Your task to perform on an android device: Show me popular videos on Youtube Image 0: 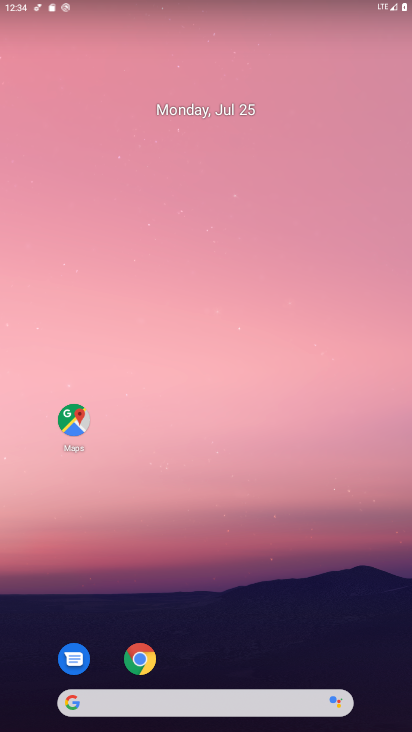
Step 0: press home button
Your task to perform on an android device: Show me popular videos on Youtube Image 1: 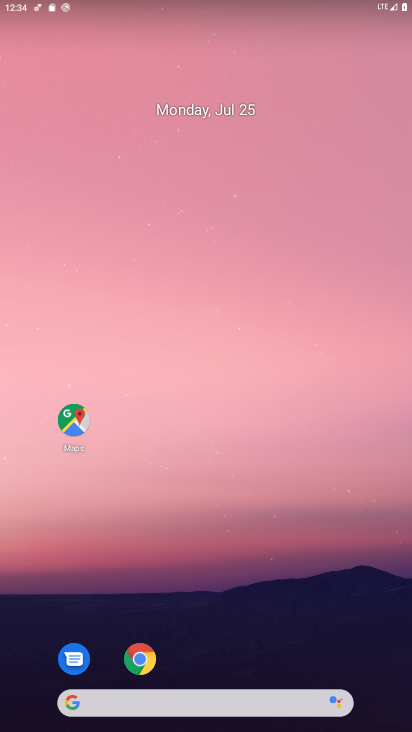
Step 1: drag from (226, 673) to (239, 5)
Your task to perform on an android device: Show me popular videos on Youtube Image 2: 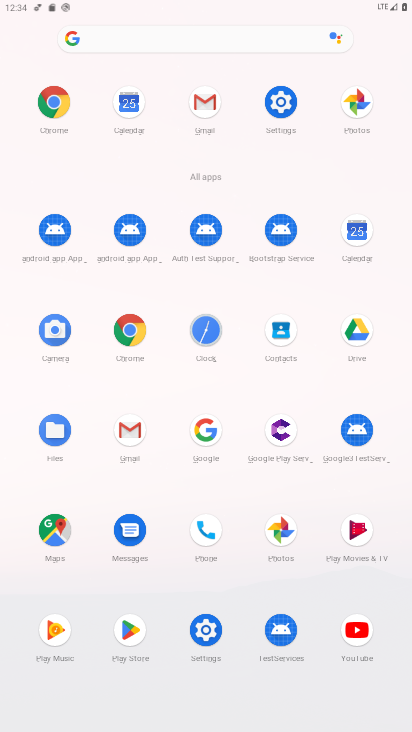
Step 2: click (357, 631)
Your task to perform on an android device: Show me popular videos on Youtube Image 3: 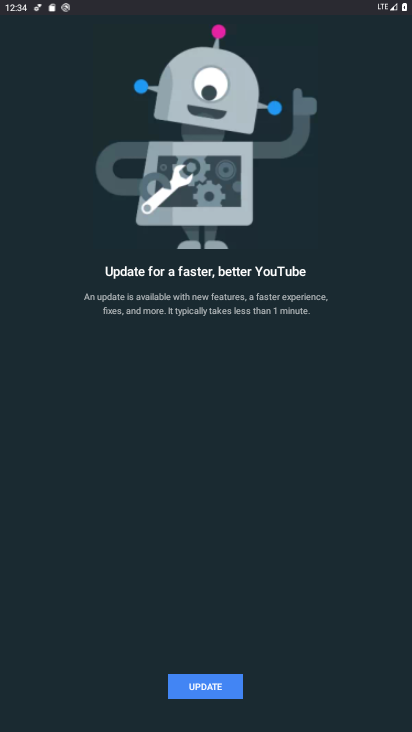
Step 3: press home button
Your task to perform on an android device: Show me popular videos on Youtube Image 4: 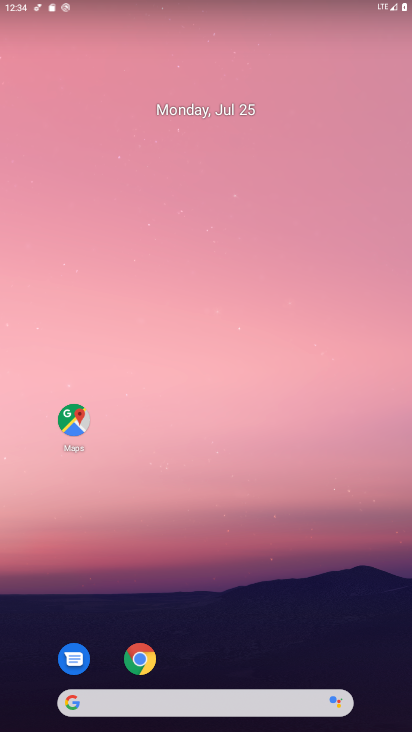
Step 4: drag from (209, 668) to (232, 9)
Your task to perform on an android device: Show me popular videos on Youtube Image 5: 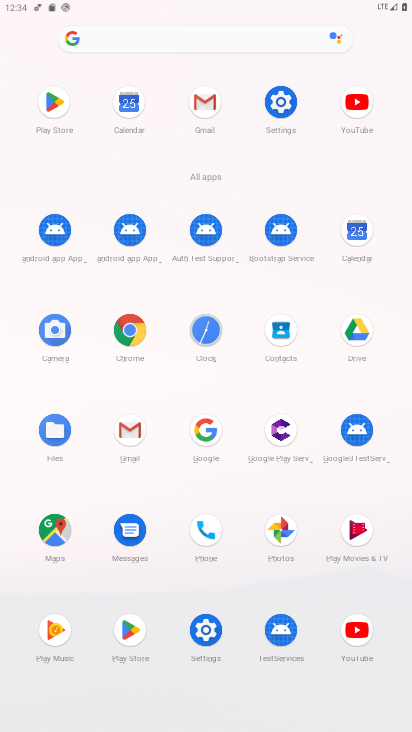
Step 5: click (354, 95)
Your task to perform on an android device: Show me popular videos on Youtube Image 6: 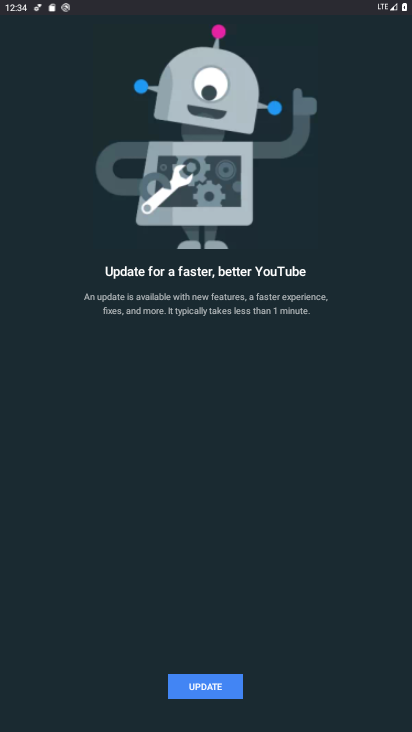
Step 6: click (207, 684)
Your task to perform on an android device: Show me popular videos on Youtube Image 7: 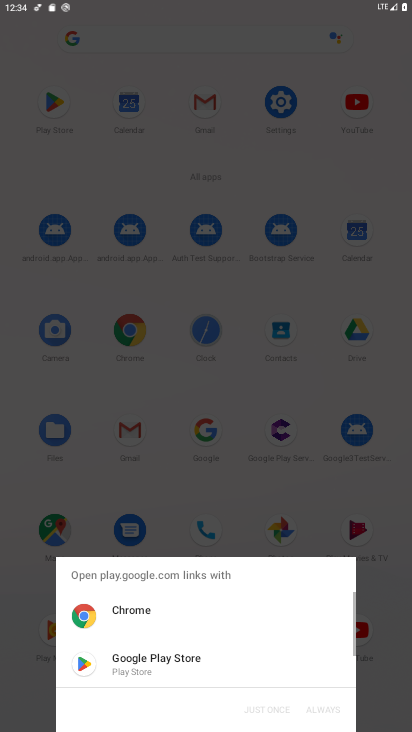
Step 7: click (143, 668)
Your task to perform on an android device: Show me popular videos on Youtube Image 8: 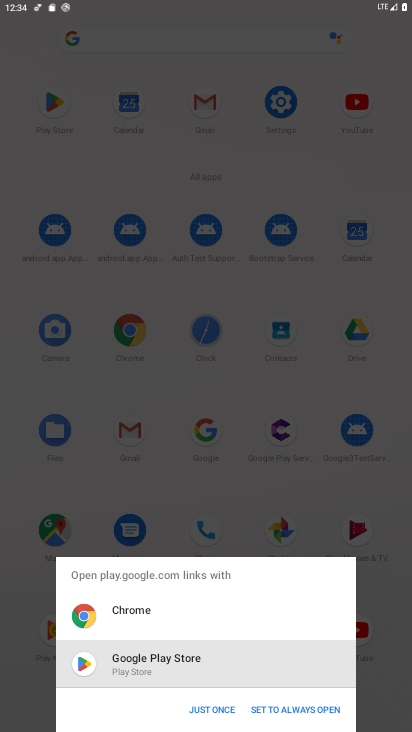
Step 8: click (214, 710)
Your task to perform on an android device: Show me popular videos on Youtube Image 9: 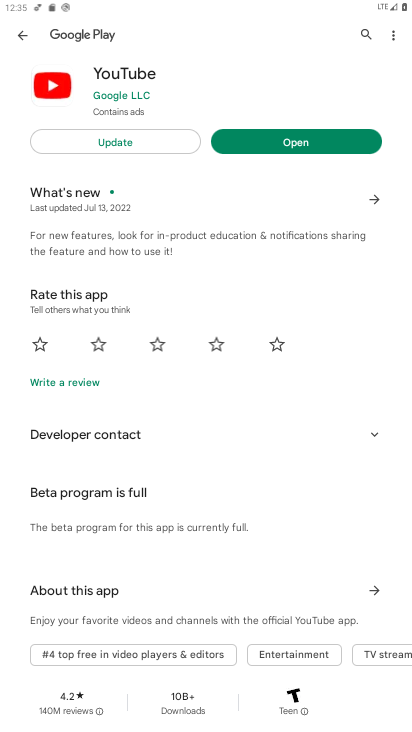
Step 9: click (118, 138)
Your task to perform on an android device: Show me popular videos on Youtube Image 10: 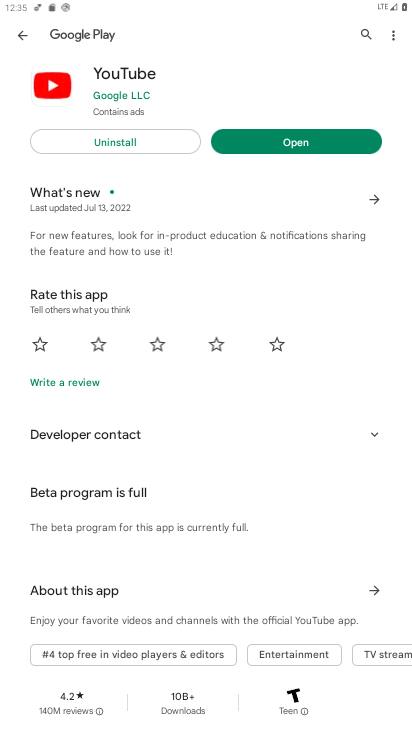
Step 10: click (331, 147)
Your task to perform on an android device: Show me popular videos on Youtube Image 11: 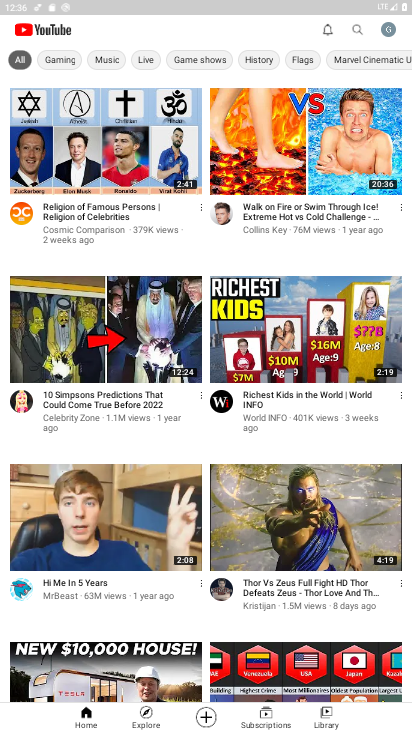
Step 11: drag from (209, 230) to (218, 613)
Your task to perform on an android device: Show me popular videos on Youtube Image 12: 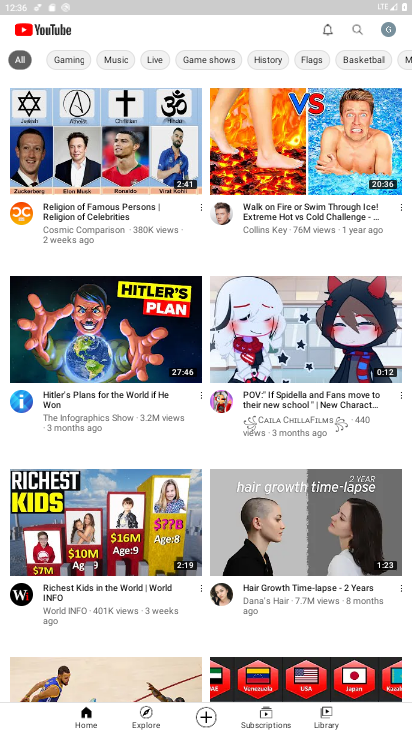
Step 12: drag from (210, 612) to (201, 323)
Your task to perform on an android device: Show me popular videos on Youtube Image 13: 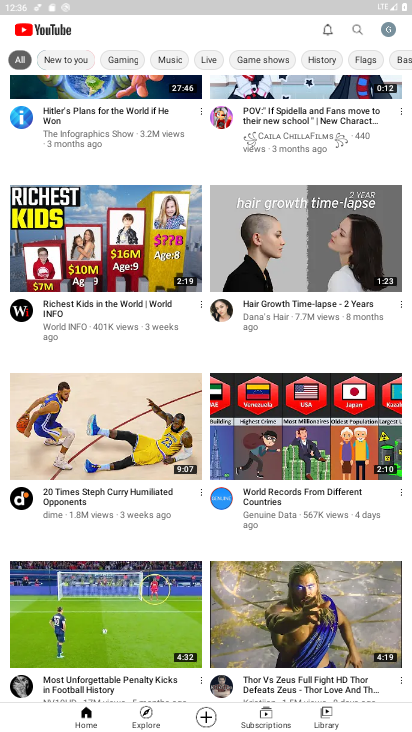
Step 13: click (151, 714)
Your task to perform on an android device: Show me popular videos on Youtube Image 14: 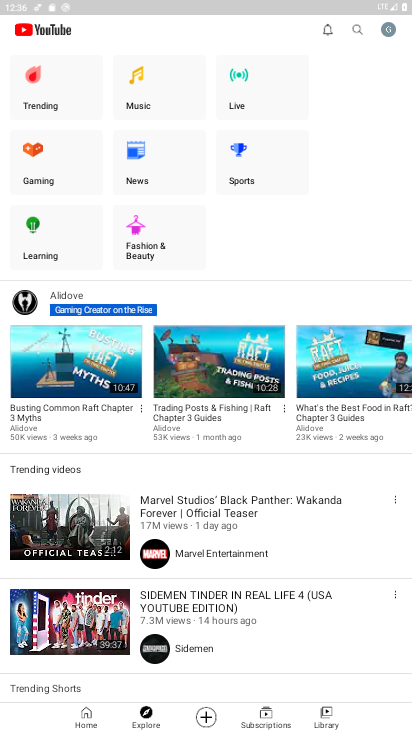
Step 14: click (57, 92)
Your task to perform on an android device: Show me popular videos on Youtube Image 15: 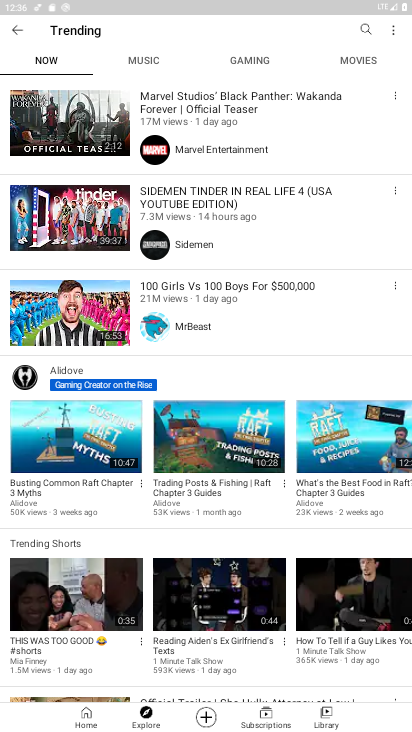
Step 15: task complete